Your task to perform on an android device: Go to sound settings Image 0: 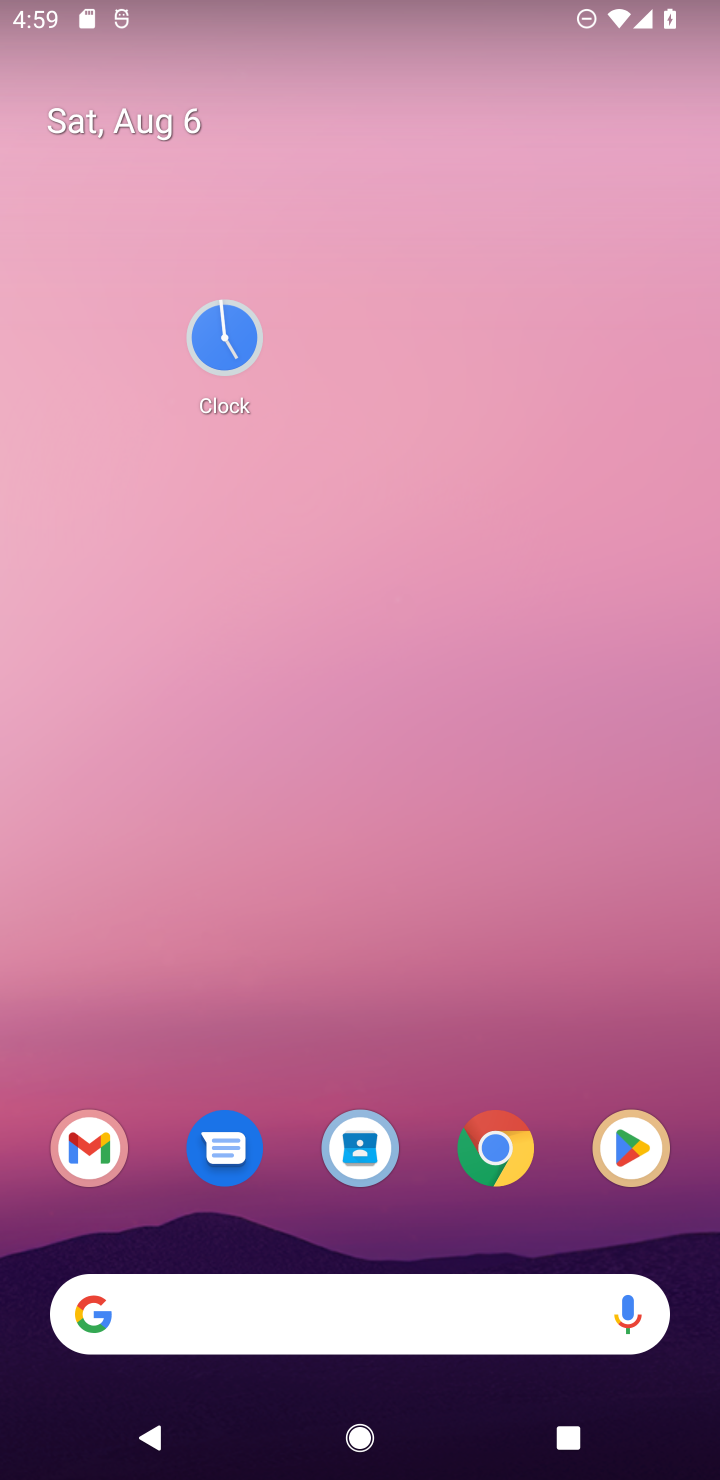
Step 0: drag from (294, 977) to (294, 170)
Your task to perform on an android device: Go to sound settings Image 1: 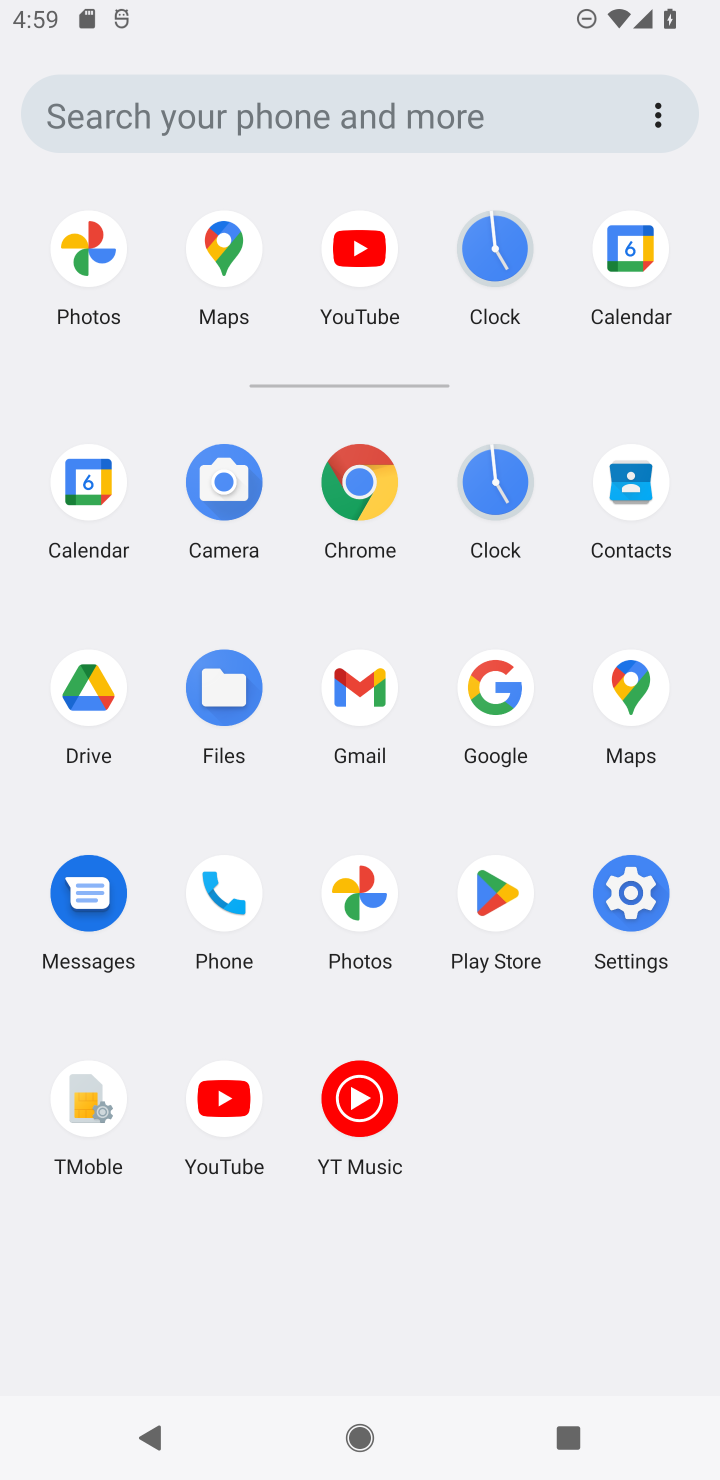
Step 1: click (614, 889)
Your task to perform on an android device: Go to sound settings Image 2: 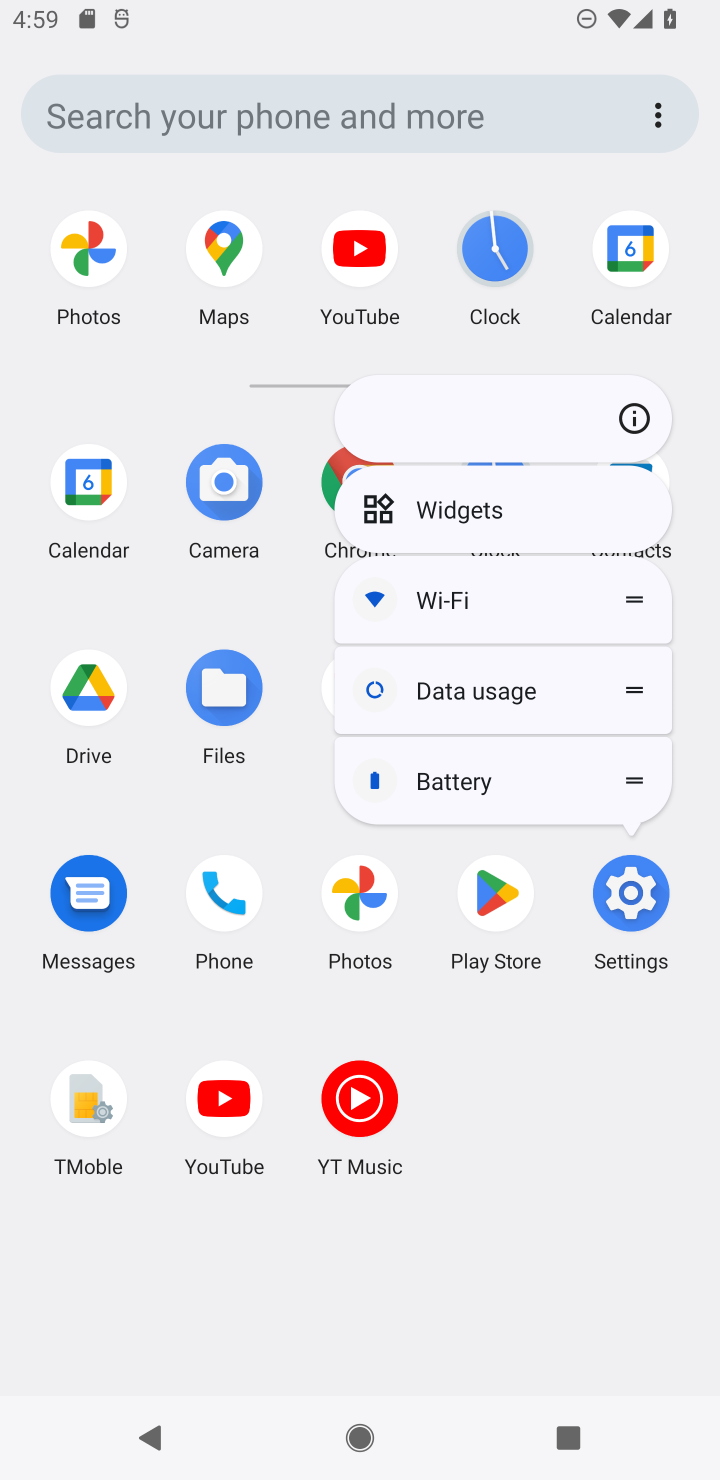
Step 2: click (645, 425)
Your task to perform on an android device: Go to sound settings Image 3: 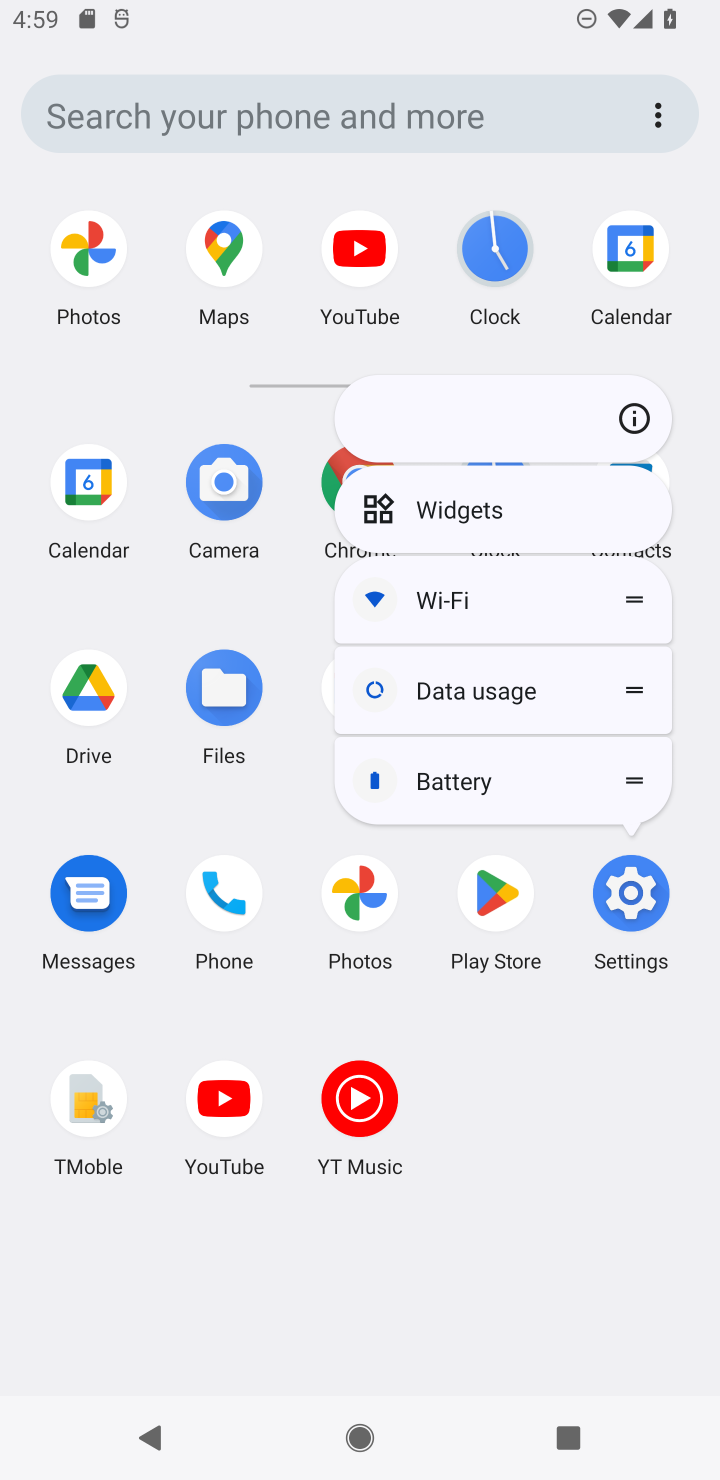
Step 3: click (622, 424)
Your task to perform on an android device: Go to sound settings Image 4: 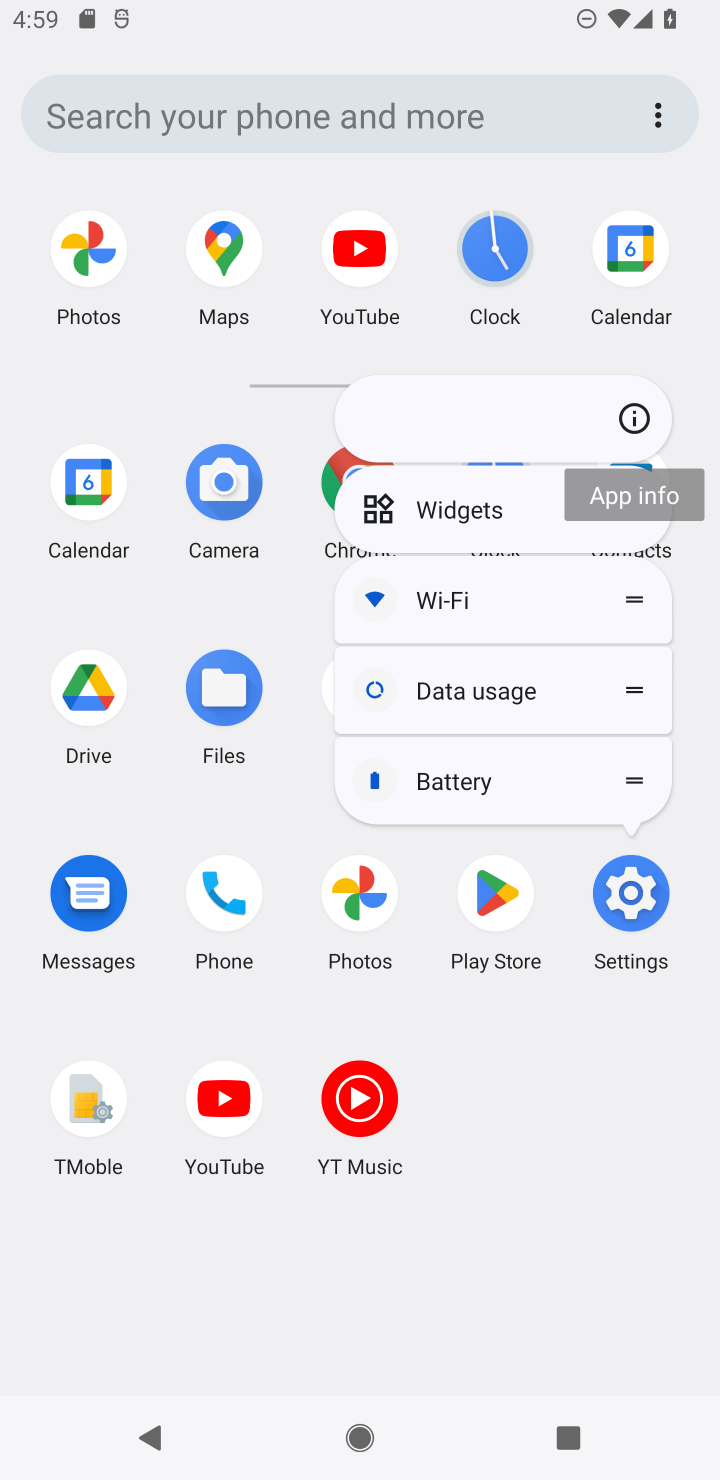
Step 4: click (620, 419)
Your task to perform on an android device: Go to sound settings Image 5: 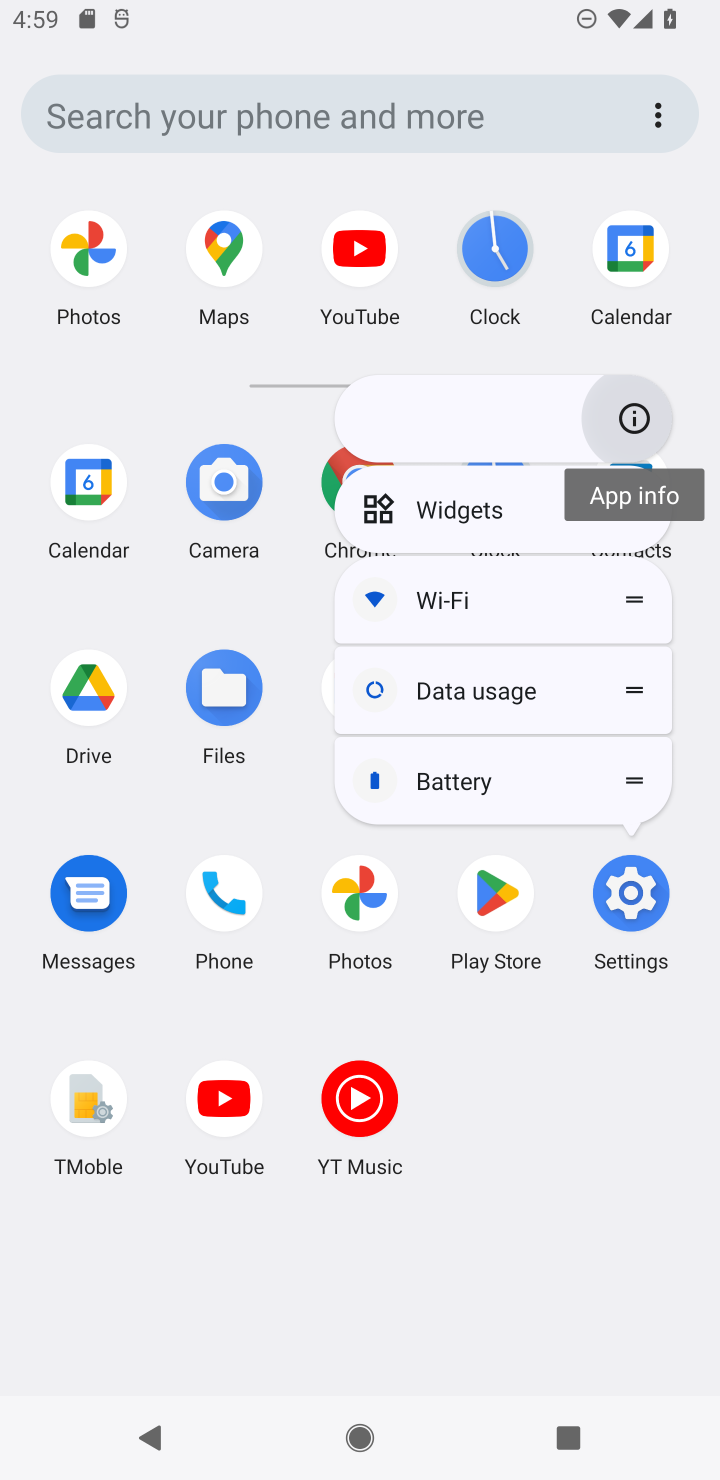
Step 5: click (620, 419)
Your task to perform on an android device: Go to sound settings Image 6: 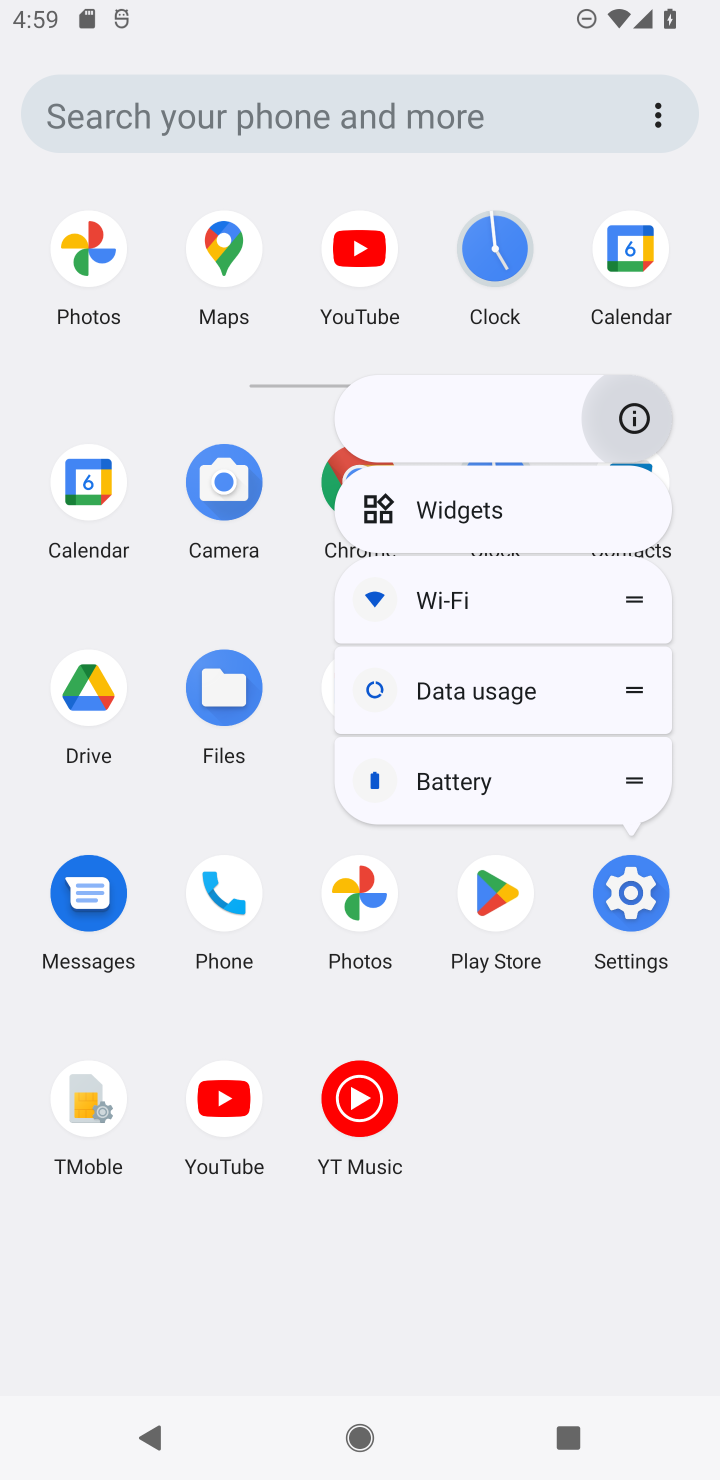
Step 6: click (620, 419)
Your task to perform on an android device: Go to sound settings Image 7: 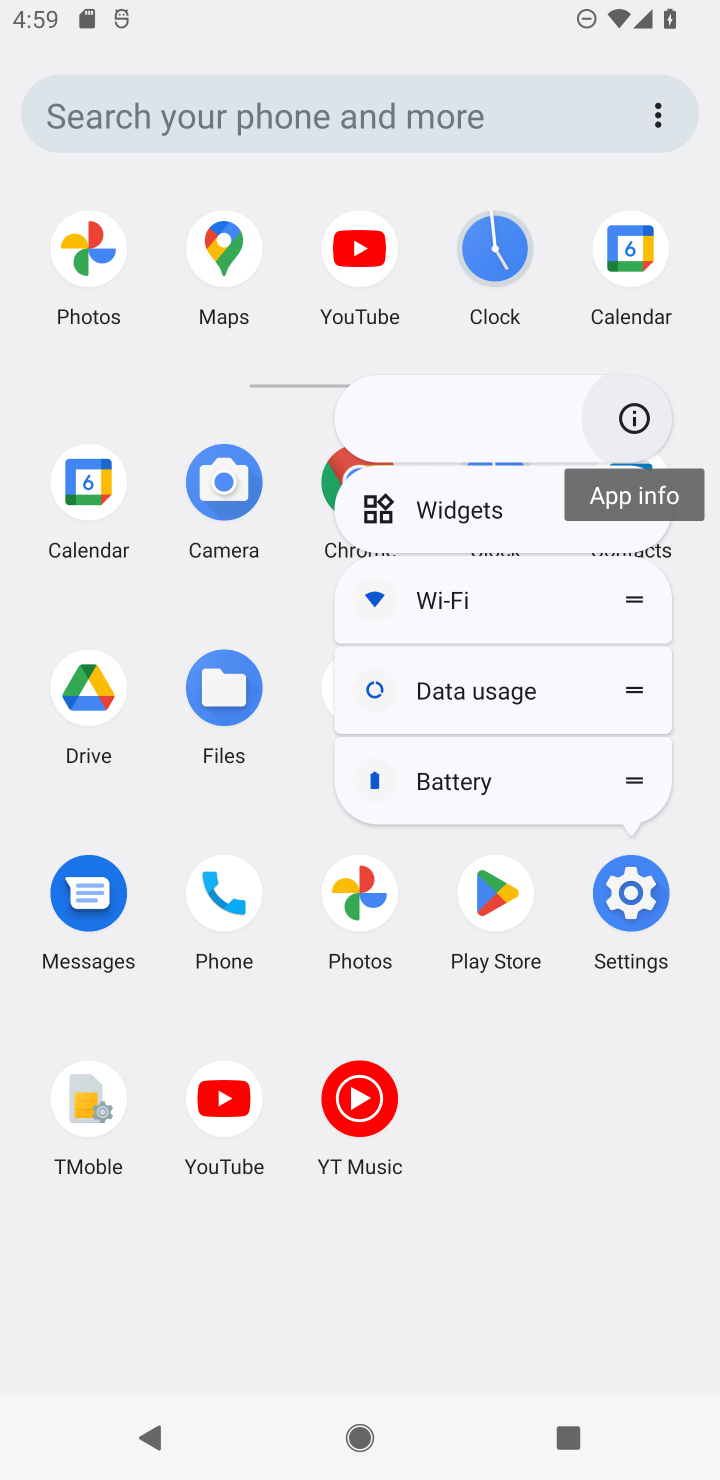
Step 7: click (608, 922)
Your task to perform on an android device: Go to sound settings Image 8: 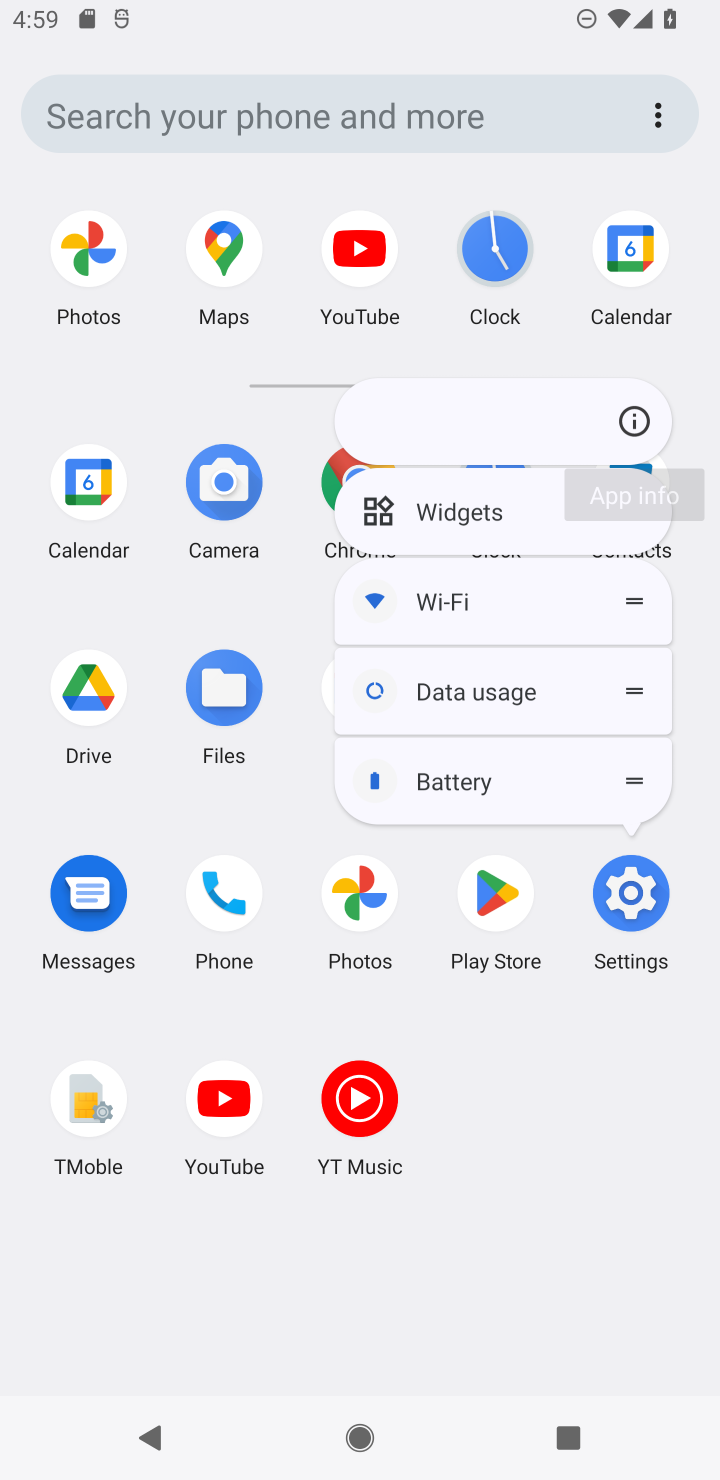
Step 8: click (606, 922)
Your task to perform on an android device: Go to sound settings Image 9: 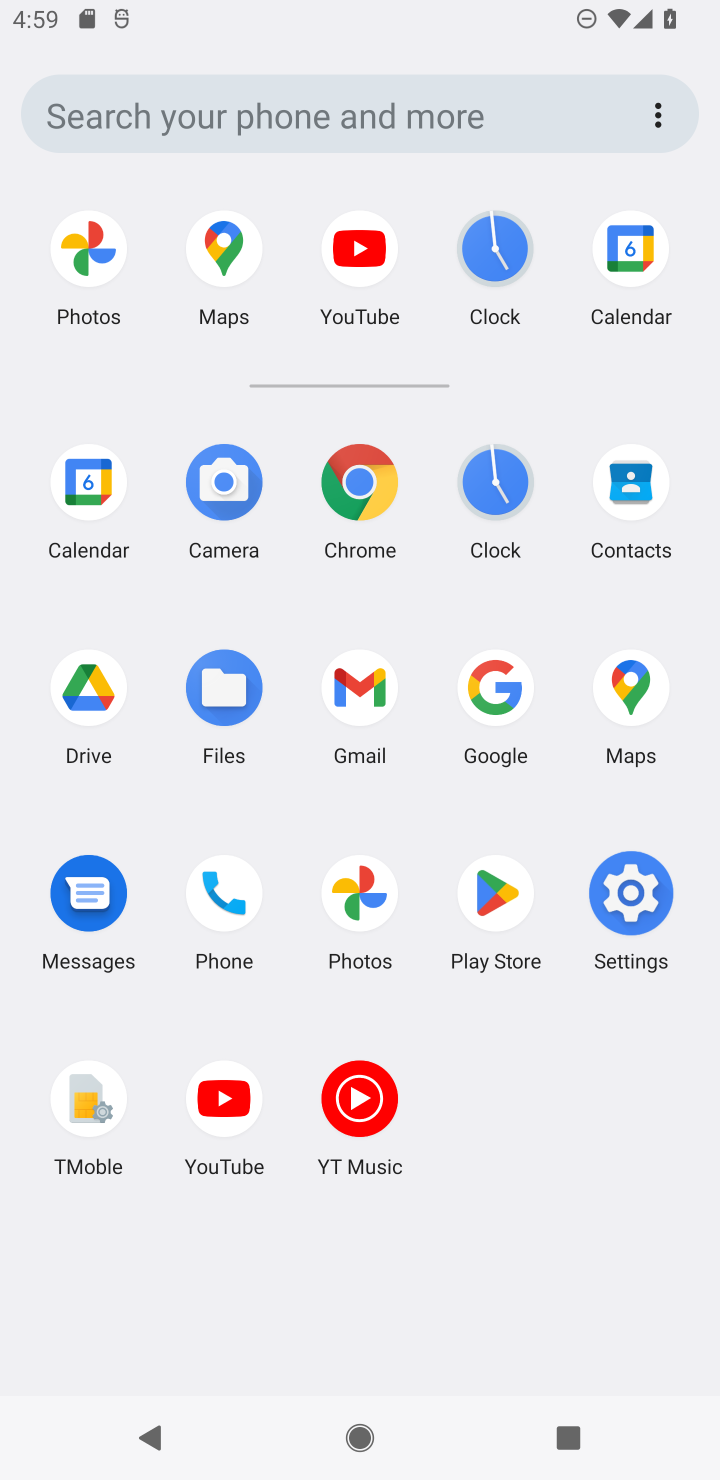
Step 9: click (633, 898)
Your task to perform on an android device: Go to sound settings Image 10: 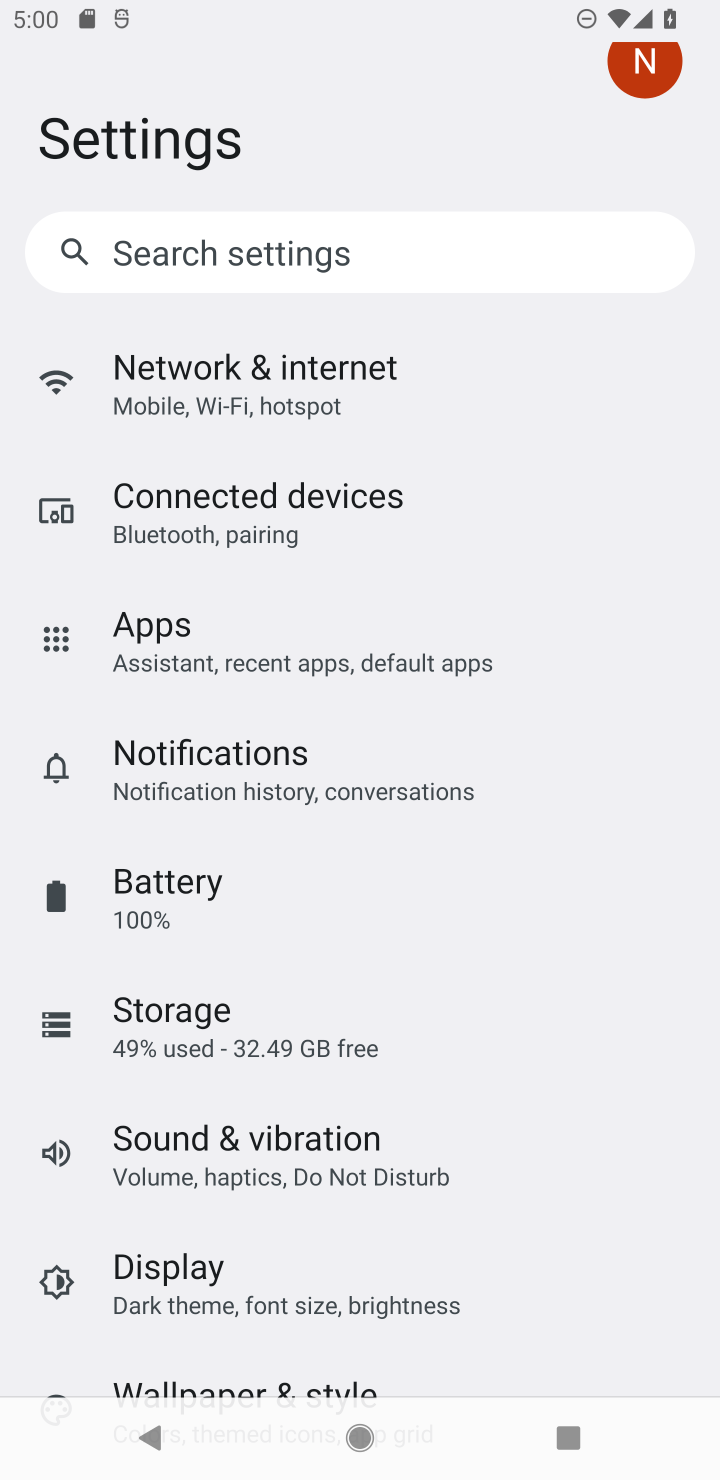
Step 10: drag from (323, 491) to (378, 203)
Your task to perform on an android device: Go to sound settings Image 11: 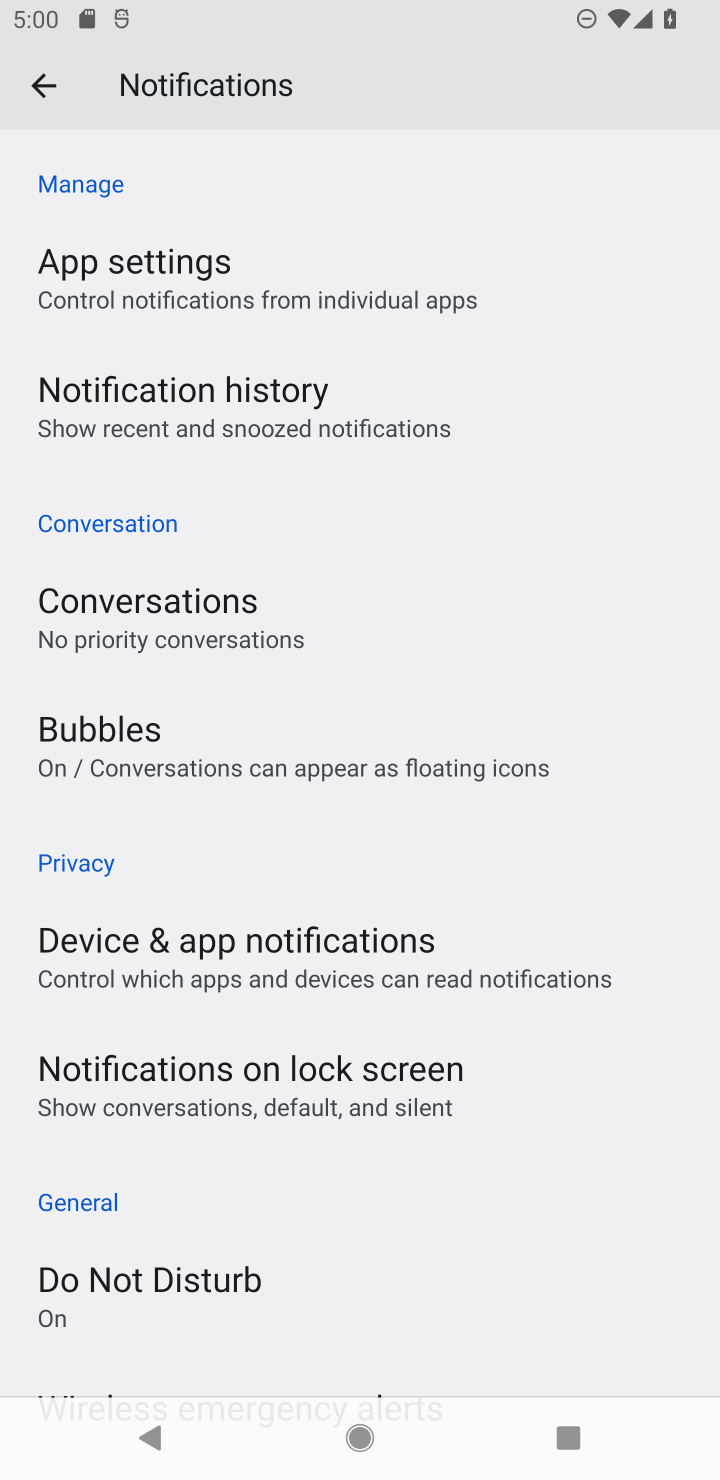
Step 11: click (45, 71)
Your task to perform on an android device: Go to sound settings Image 12: 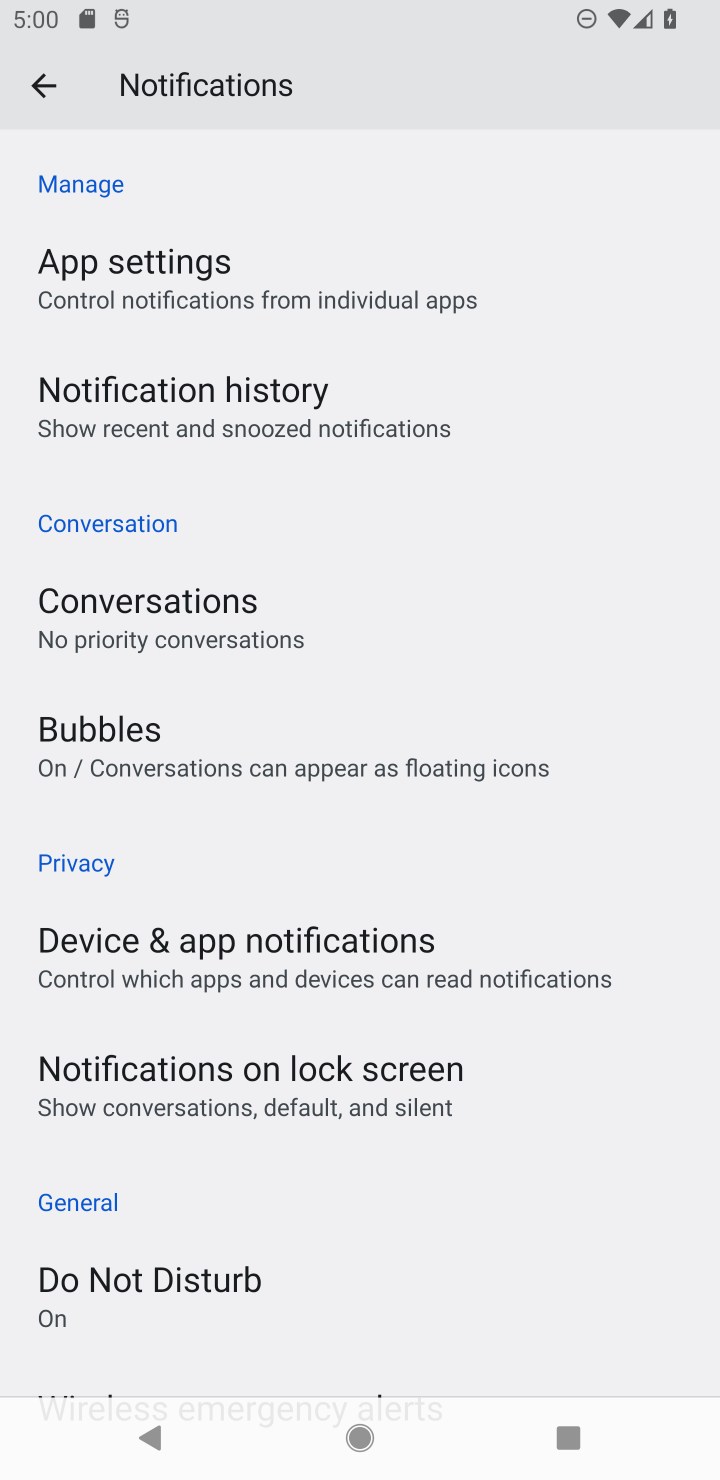
Step 12: drag from (272, 1198) to (412, 232)
Your task to perform on an android device: Go to sound settings Image 13: 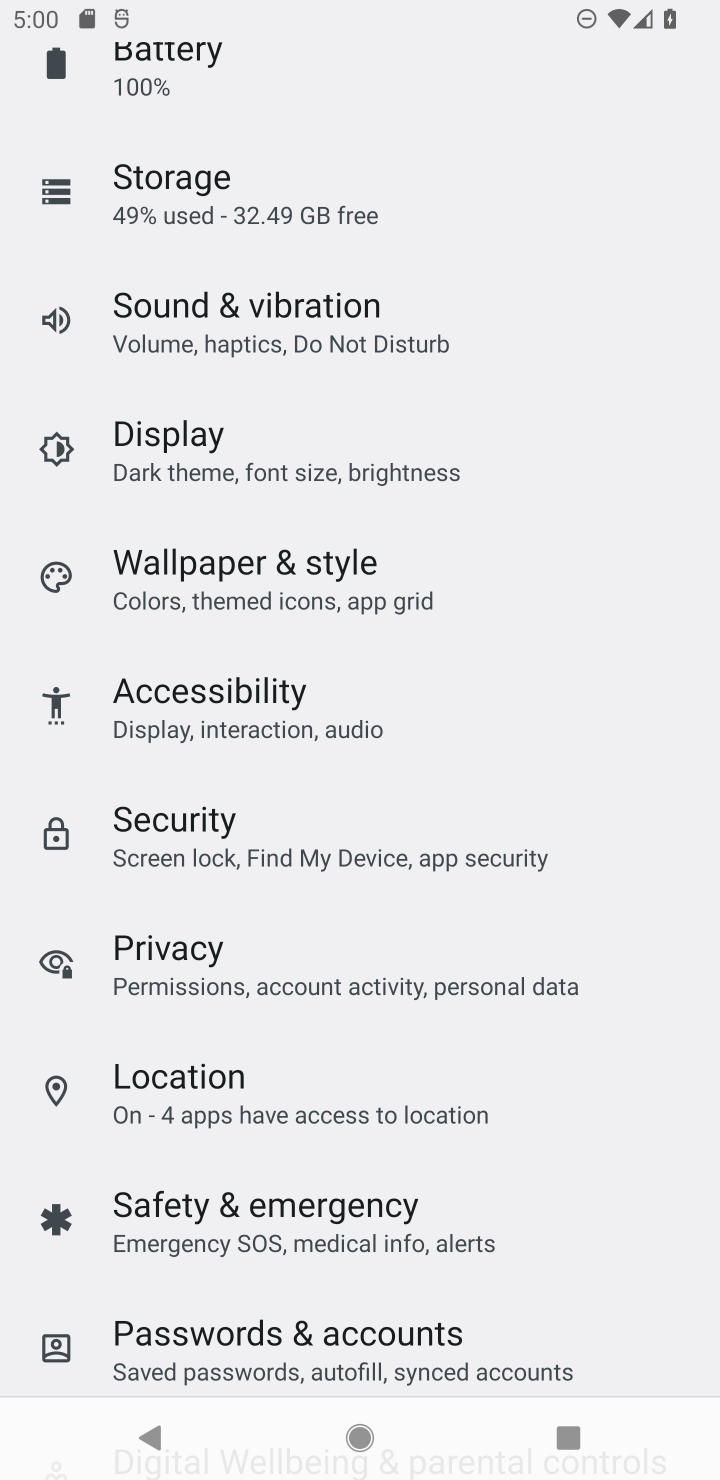
Step 13: click (149, 306)
Your task to perform on an android device: Go to sound settings Image 14: 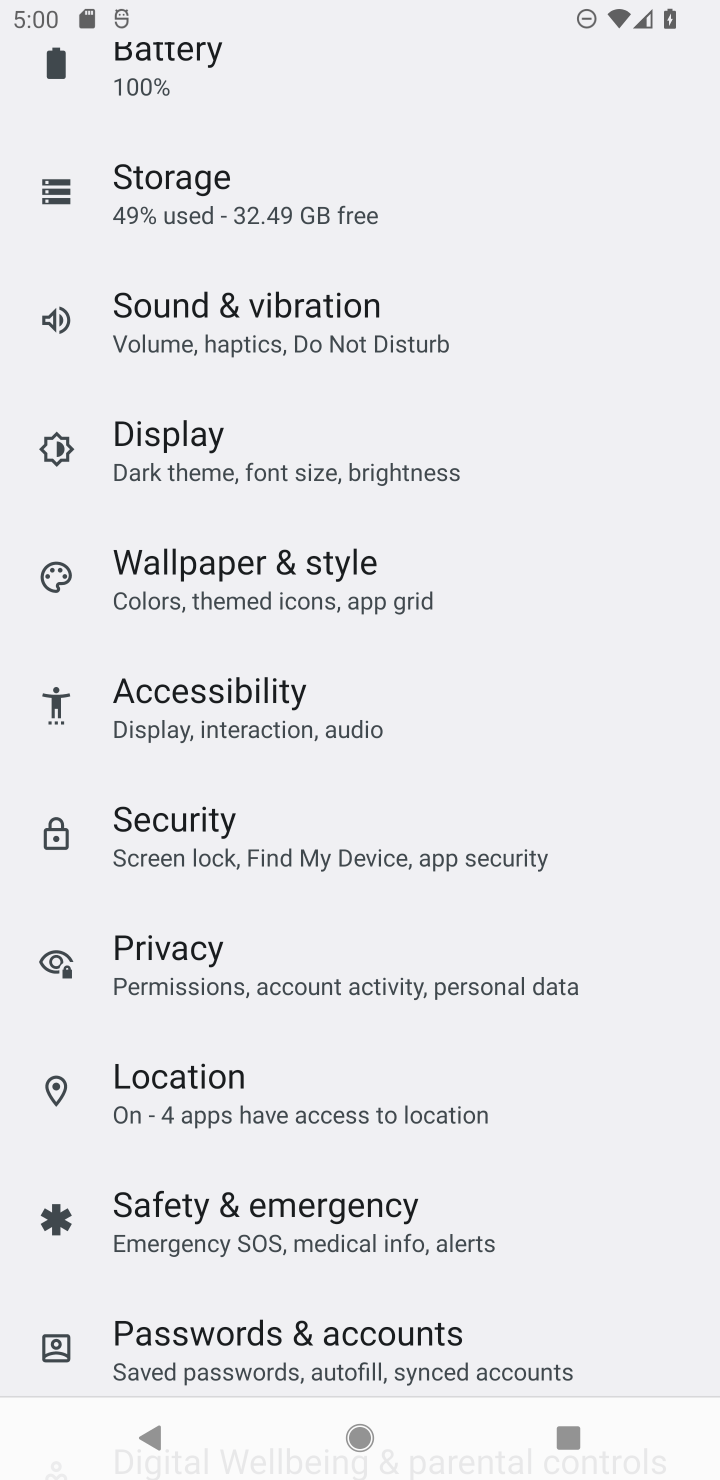
Step 14: click (149, 306)
Your task to perform on an android device: Go to sound settings Image 15: 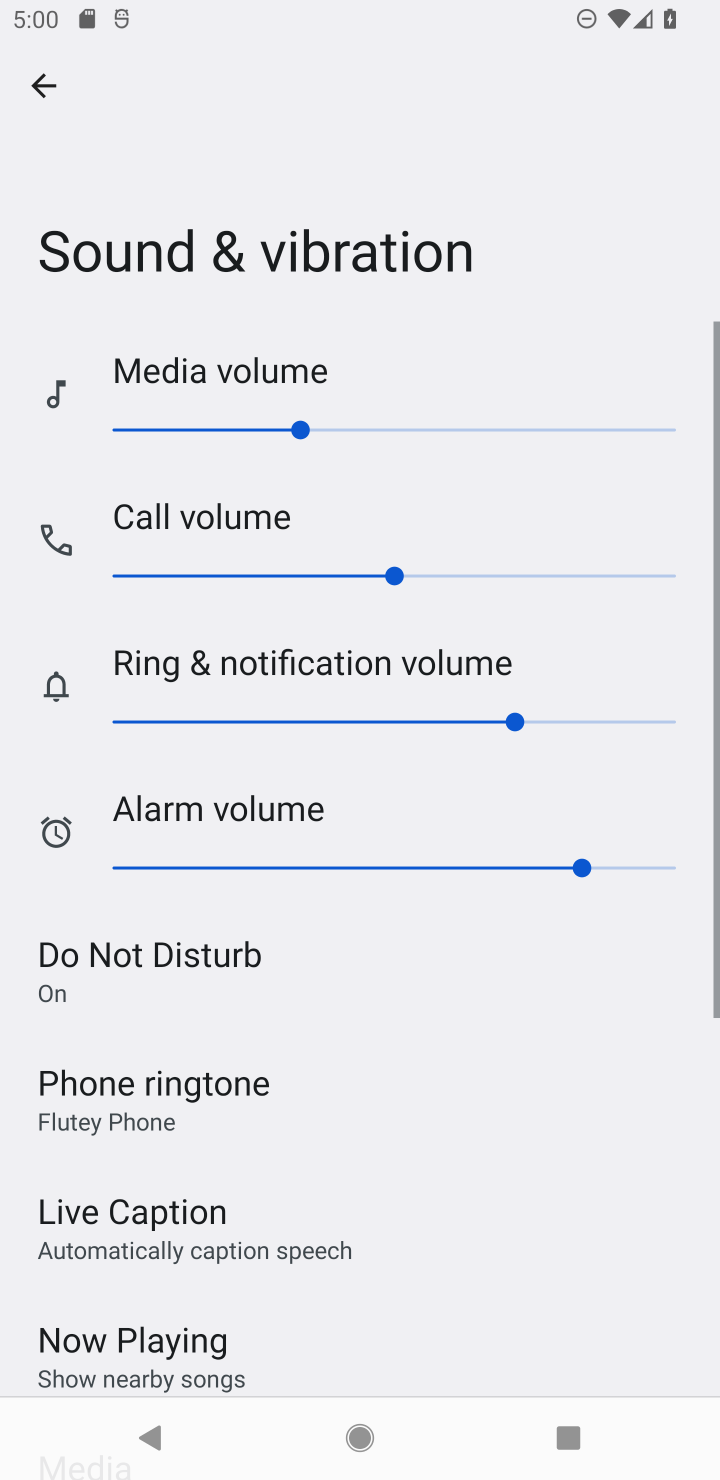
Step 15: task complete